Your task to perform on an android device: What's the weather going to be tomorrow? Image 0: 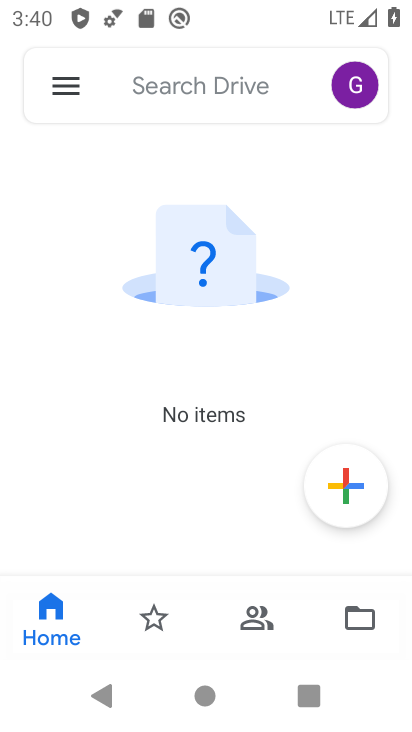
Step 0: press home button
Your task to perform on an android device: What's the weather going to be tomorrow? Image 1: 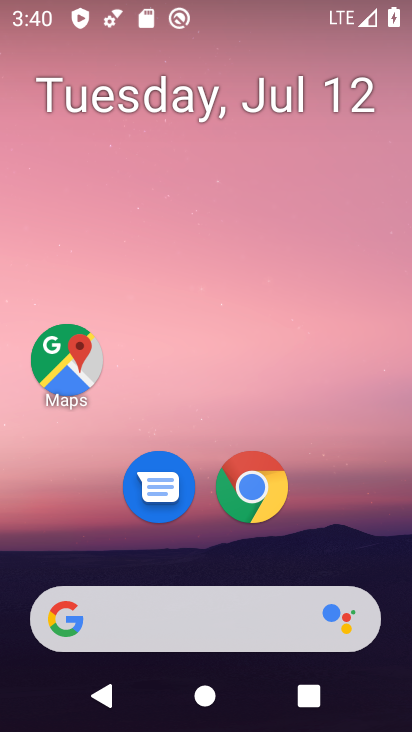
Step 1: drag from (208, 601) to (203, 0)
Your task to perform on an android device: What's the weather going to be tomorrow? Image 2: 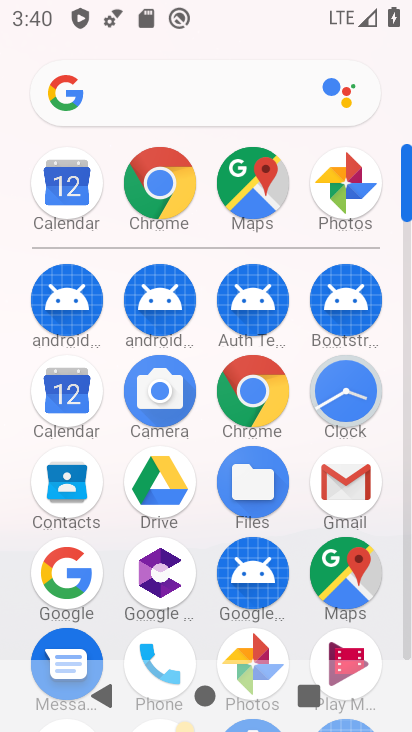
Step 2: click (74, 597)
Your task to perform on an android device: What's the weather going to be tomorrow? Image 3: 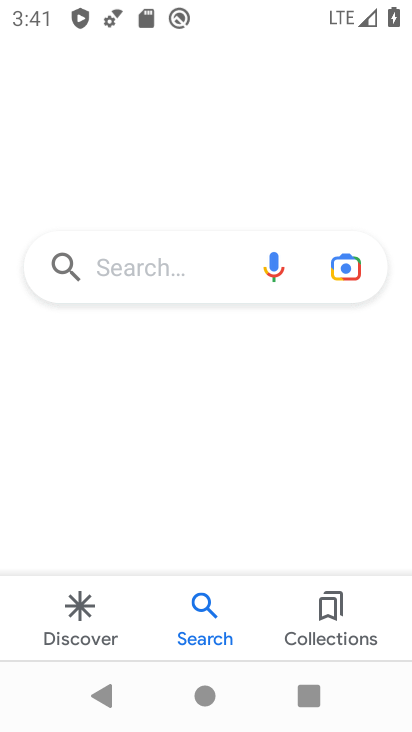
Step 3: click (136, 280)
Your task to perform on an android device: What's the weather going to be tomorrow? Image 4: 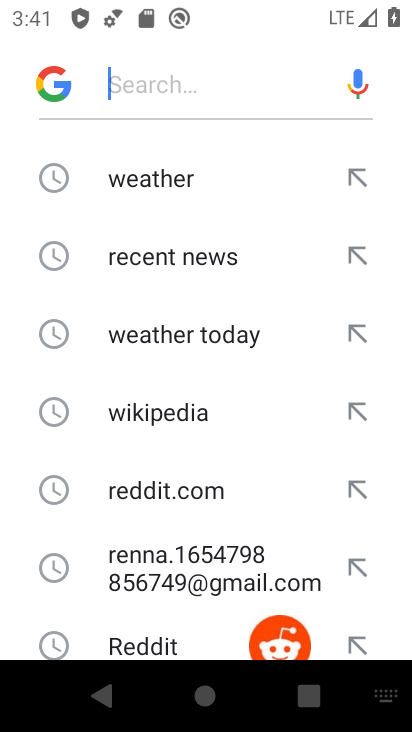
Step 4: click (336, 186)
Your task to perform on an android device: What's the weather going to be tomorrow? Image 5: 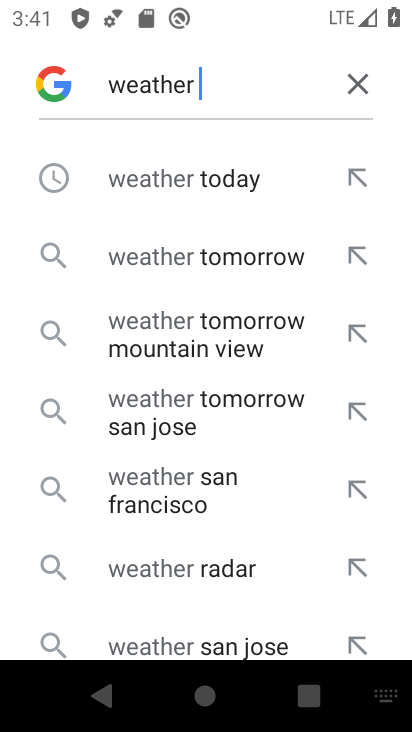
Step 5: click (263, 270)
Your task to perform on an android device: What's the weather going to be tomorrow? Image 6: 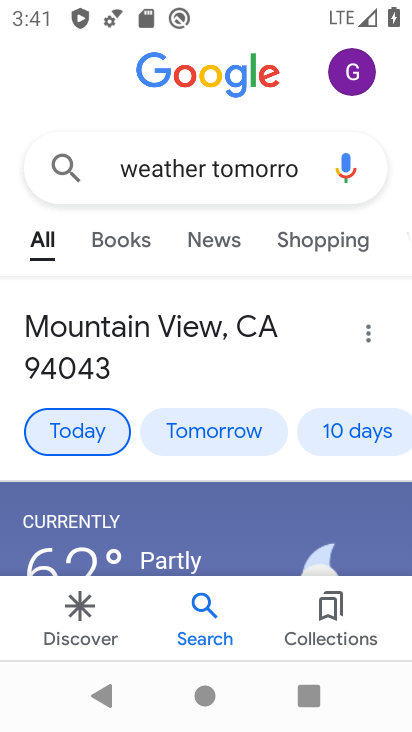
Step 6: click (200, 440)
Your task to perform on an android device: What's the weather going to be tomorrow? Image 7: 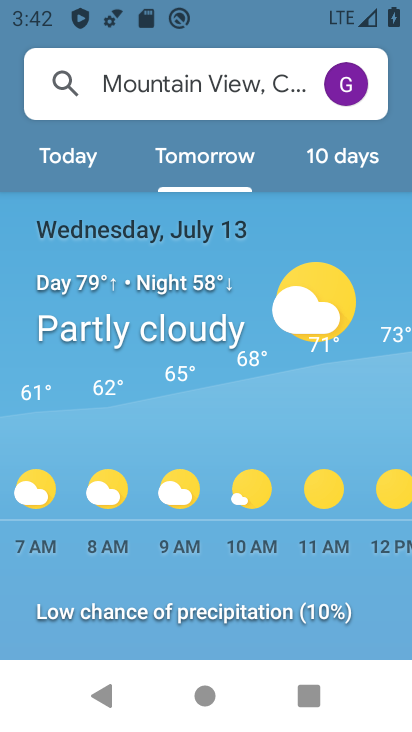
Step 7: task complete